Your task to perform on an android device: Search for the ikea sjalv lamp Image 0: 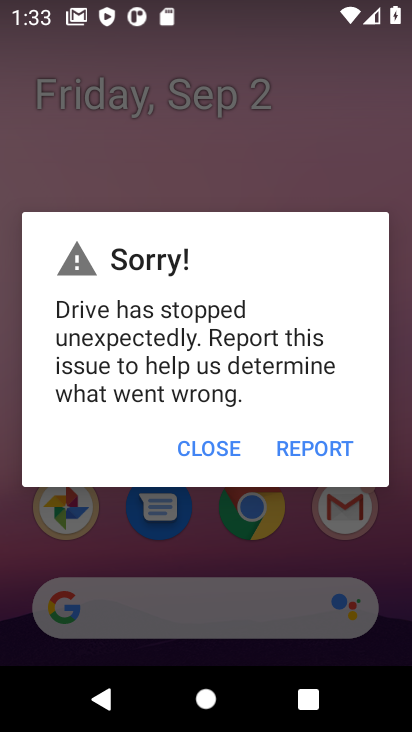
Step 0: click (220, 459)
Your task to perform on an android device: Search for the ikea sjalv lamp Image 1: 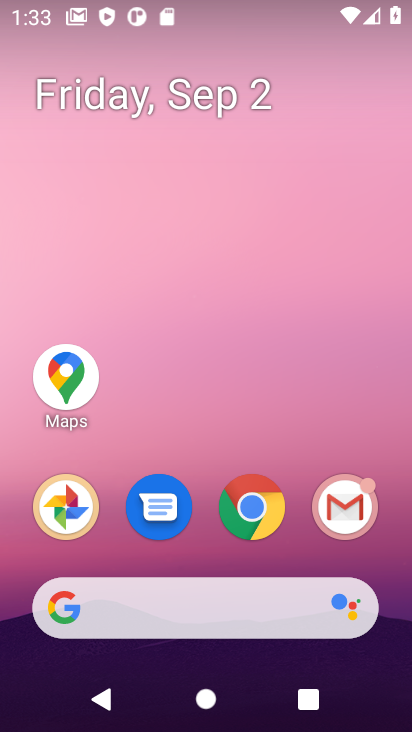
Step 1: click (238, 501)
Your task to perform on an android device: Search for the ikea sjalv lamp Image 2: 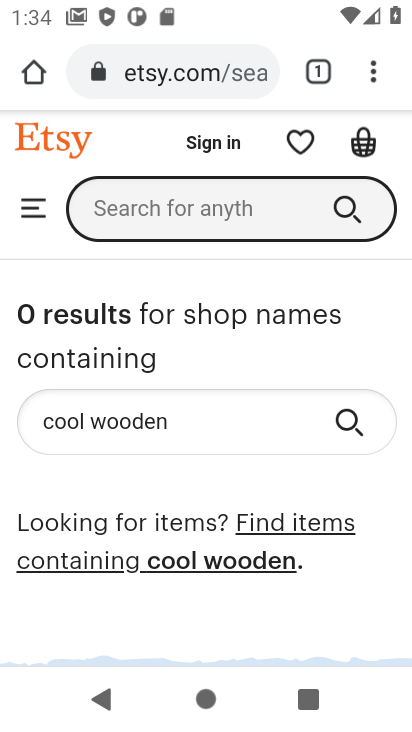
Step 2: click (222, 198)
Your task to perform on an android device: Search for the ikea sjalv lamp Image 3: 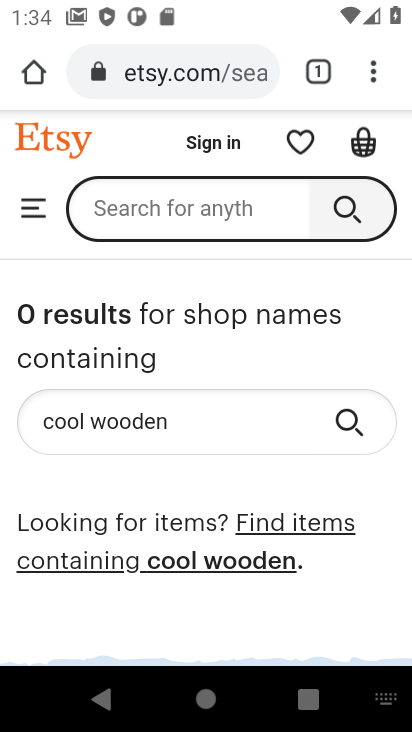
Step 3: type "sjalv lamp"
Your task to perform on an android device: Search for the ikea sjalv lamp Image 4: 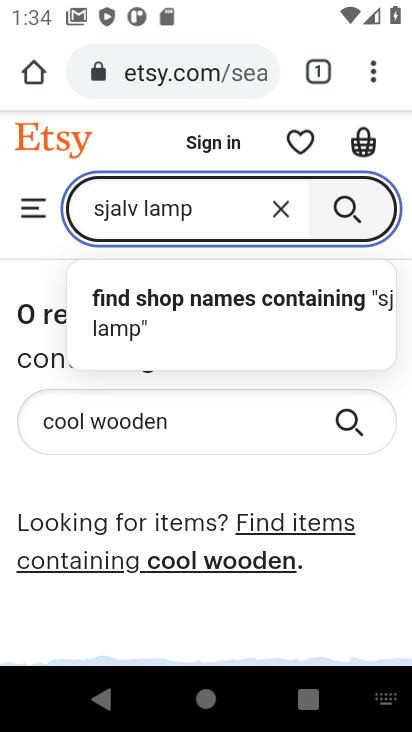
Step 4: click (240, 290)
Your task to perform on an android device: Search for the ikea sjalv lamp Image 5: 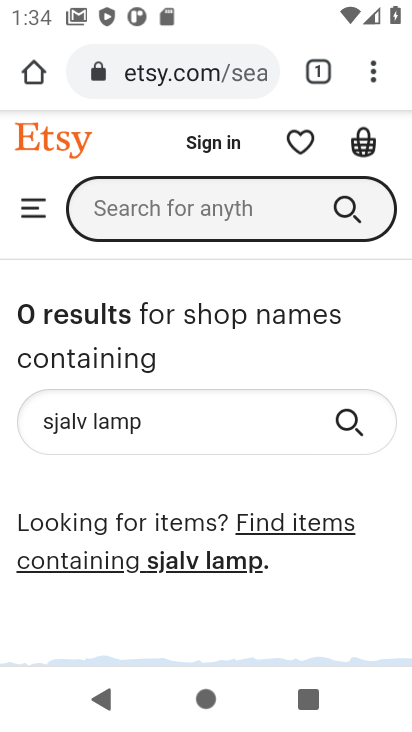
Step 5: task complete